Your task to perform on an android device: open sync settings in chrome Image 0: 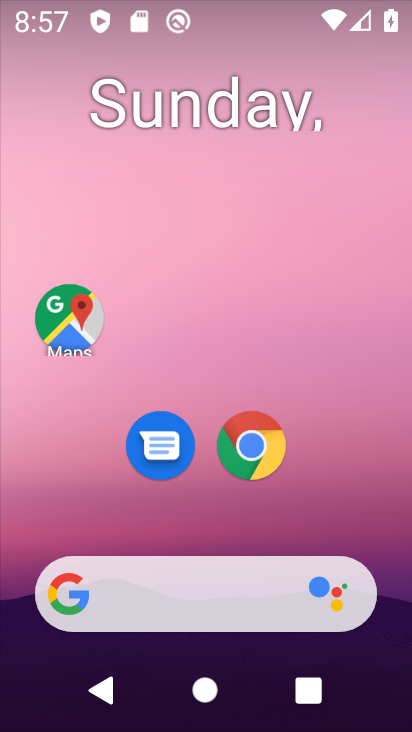
Step 0: click (258, 442)
Your task to perform on an android device: open sync settings in chrome Image 1: 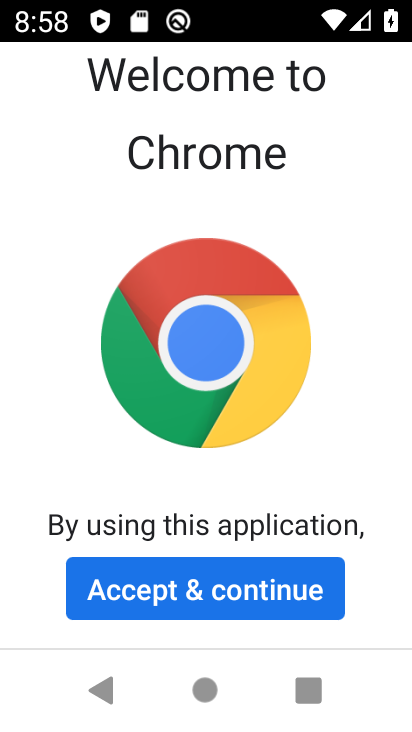
Step 1: click (188, 598)
Your task to perform on an android device: open sync settings in chrome Image 2: 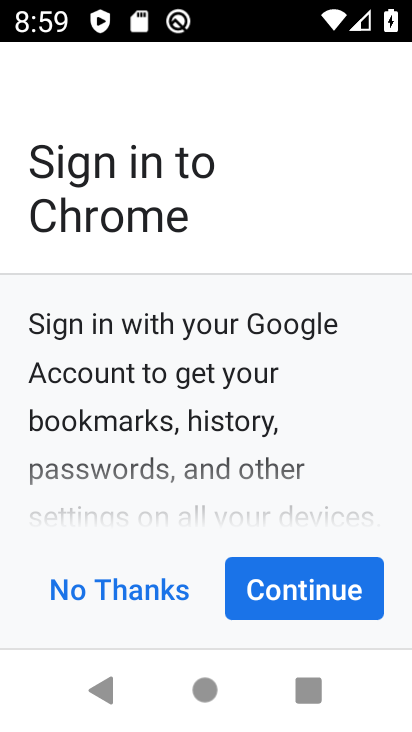
Step 2: click (325, 577)
Your task to perform on an android device: open sync settings in chrome Image 3: 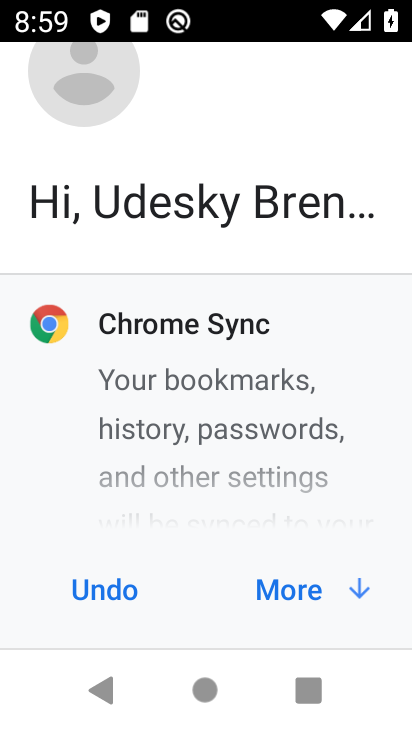
Step 3: click (325, 585)
Your task to perform on an android device: open sync settings in chrome Image 4: 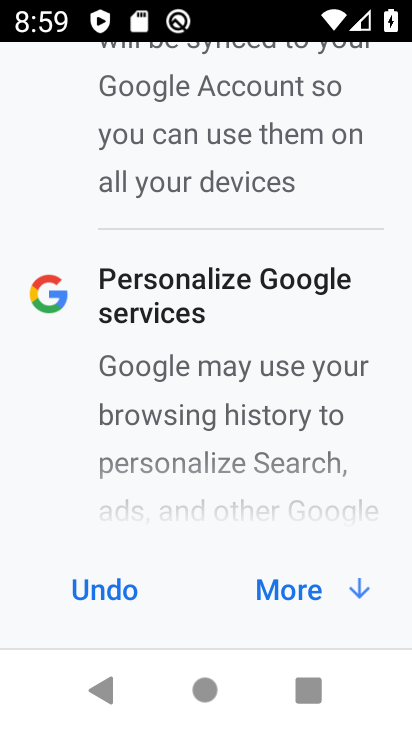
Step 4: click (325, 585)
Your task to perform on an android device: open sync settings in chrome Image 5: 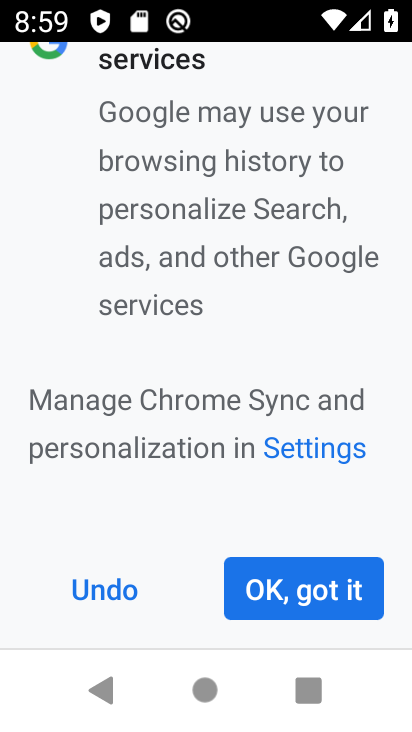
Step 5: click (325, 585)
Your task to perform on an android device: open sync settings in chrome Image 6: 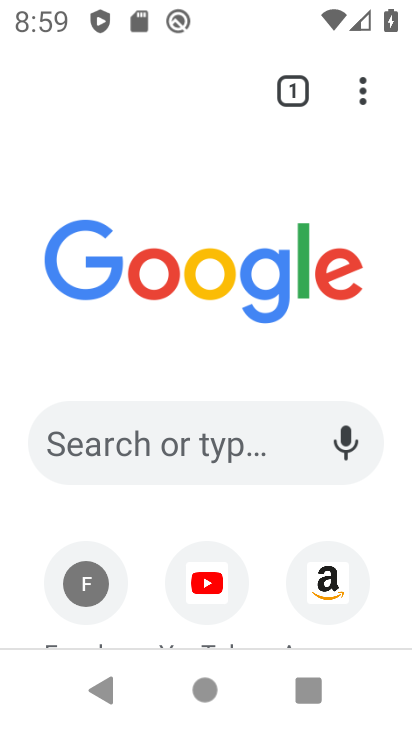
Step 6: drag from (361, 87) to (142, 469)
Your task to perform on an android device: open sync settings in chrome Image 7: 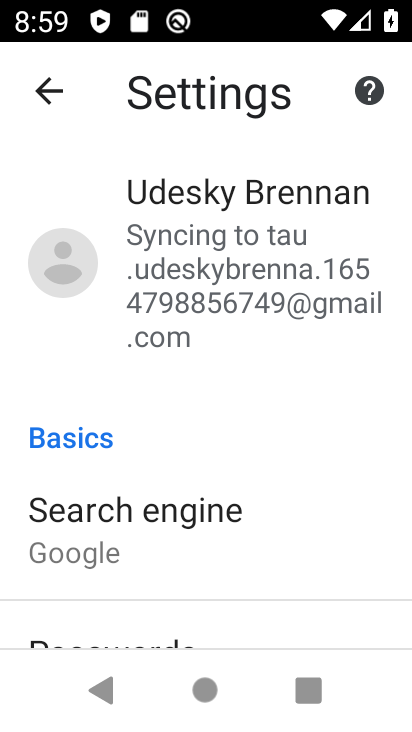
Step 7: drag from (289, 561) to (267, 174)
Your task to perform on an android device: open sync settings in chrome Image 8: 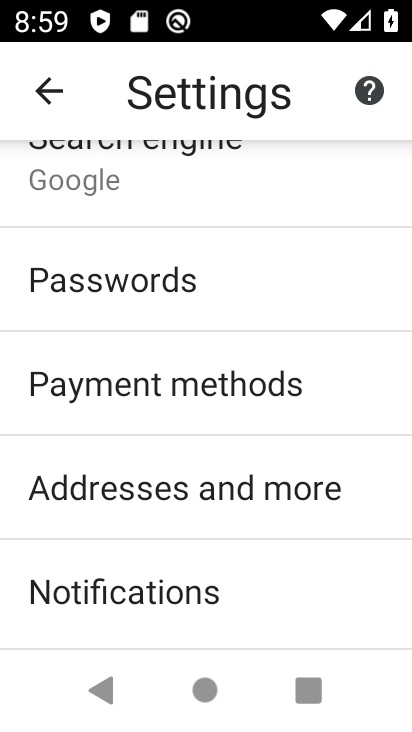
Step 8: click (116, 149)
Your task to perform on an android device: open sync settings in chrome Image 9: 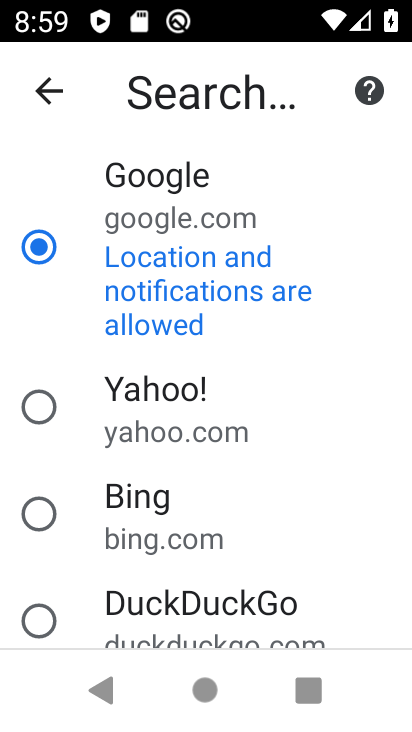
Step 9: click (157, 242)
Your task to perform on an android device: open sync settings in chrome Image 10: 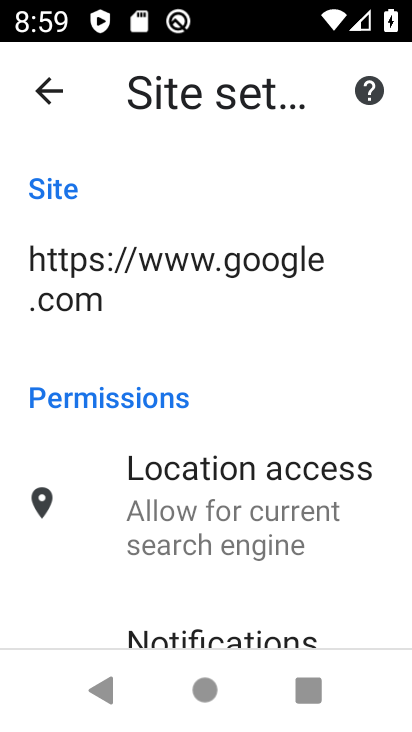
Step 10: click (54, 80)
Your task to perform on an android device: open sync settings in chrome Image 11: 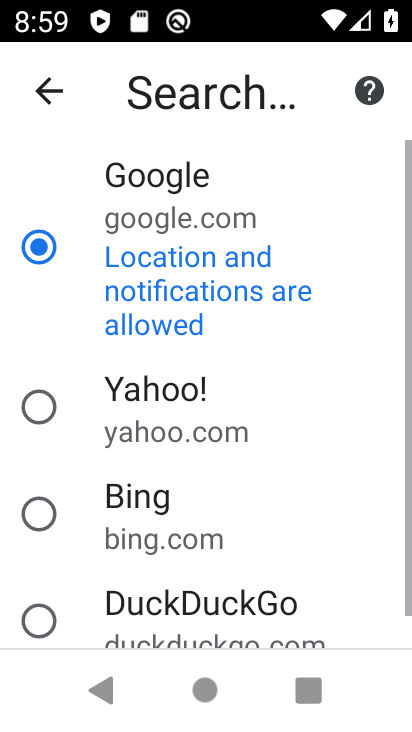
Step 11: click (54, 80)
Your task to perform on an android device: open sync settings in chrome Image 12: 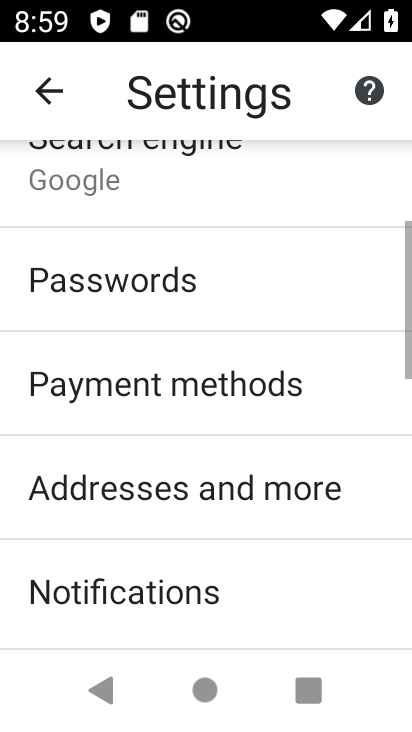
Step 12: drag from (261, 203) to (250, 574)
Your task to perform on an android device: open sync settings in chrome Image 13: 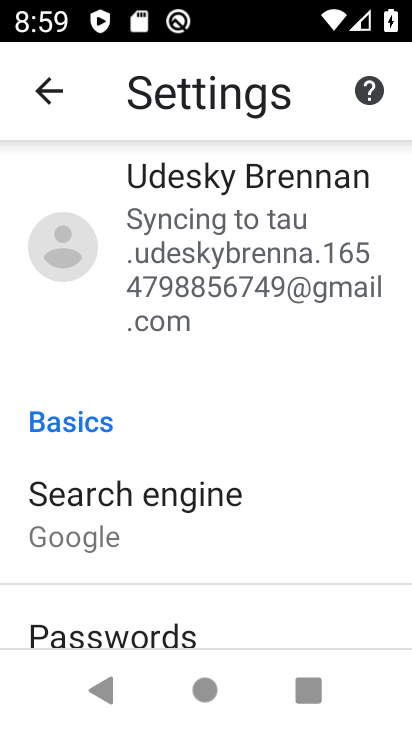
Step 13: click (116, 256)
Your task to perform on an android device: open sync settings in chrome Image 14: 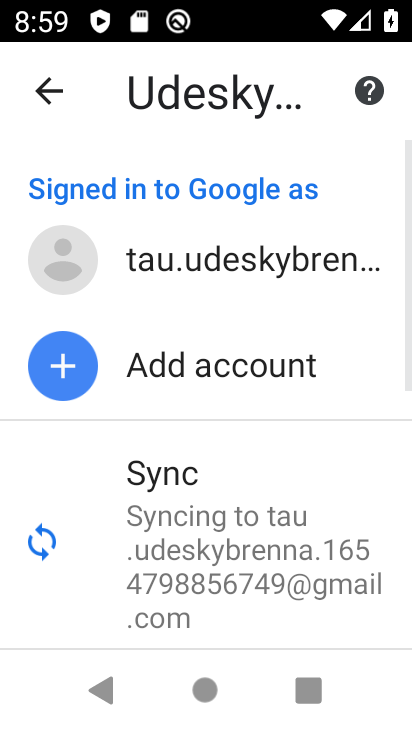
Step 14: click (196, 499)
Your task to perform on an android device: open sync settings in chrome Image 15: 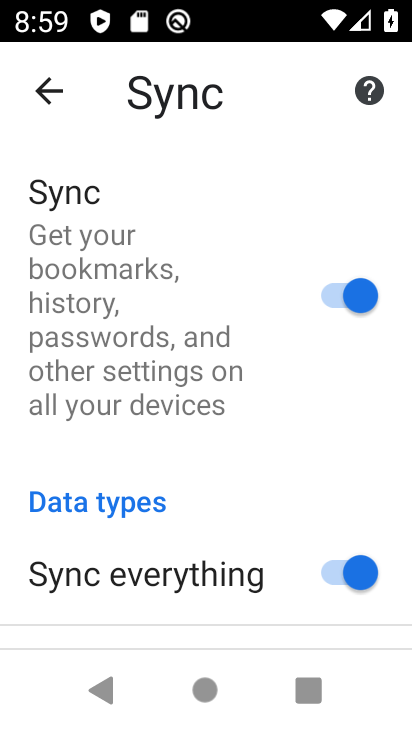
Step 15: task complete